Your task to perform on an android device: Go to Maps Image 0: 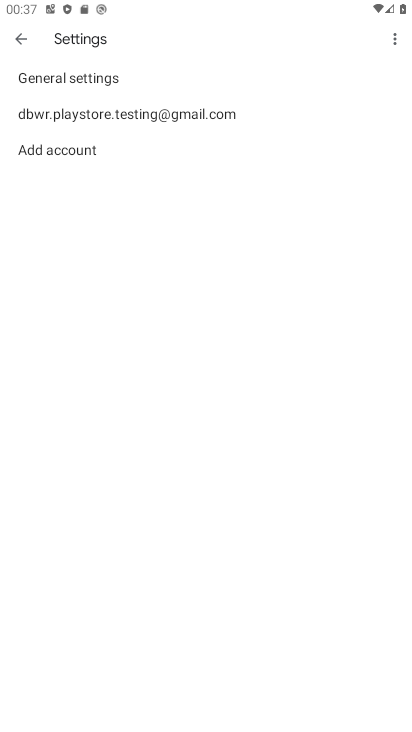
Step 0: press home button
Your task to perform on an android device: Go to Maps Image 1: 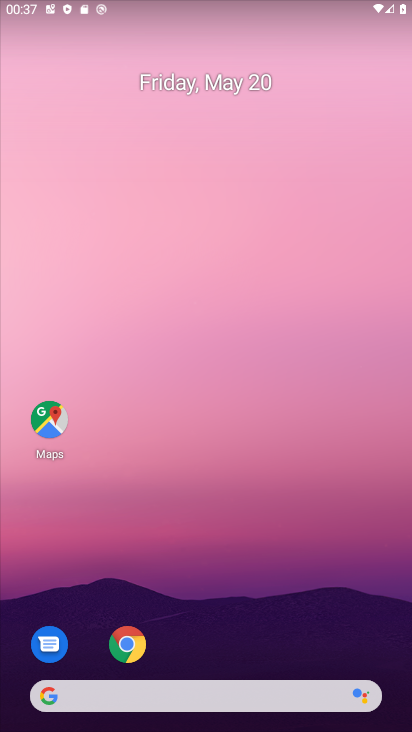
Step 1: click (43, 431)
Your task to perform on an android device: Go to Maps Image 2: 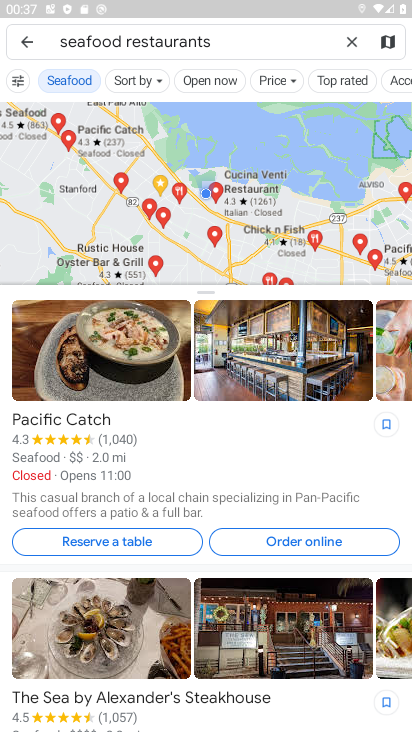
Step 2: task complete